Your task to perform on an android device: Clear all items from cart on bestbuy. Search for bose soundlink mini on bestbuy, select the first entry, add it to the cart, then select checkout. Image 0: 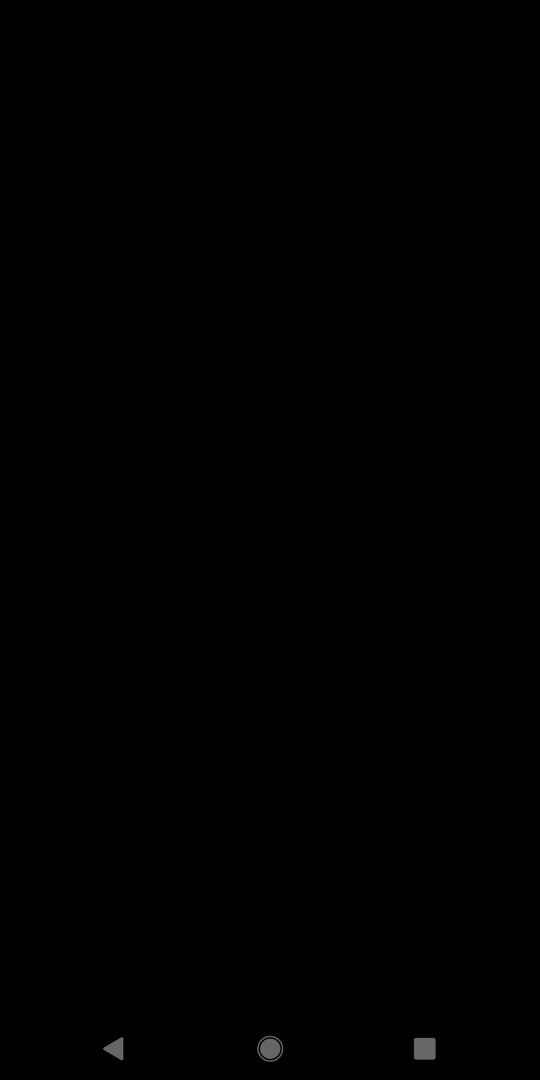
Step 0: press home button
Your task to perform on an android device: Clear all items from cart on bestbuy. Search for bose soundlink mini on bestbuy, select the first entry, add it to the cart, then select checkout. Image 1: 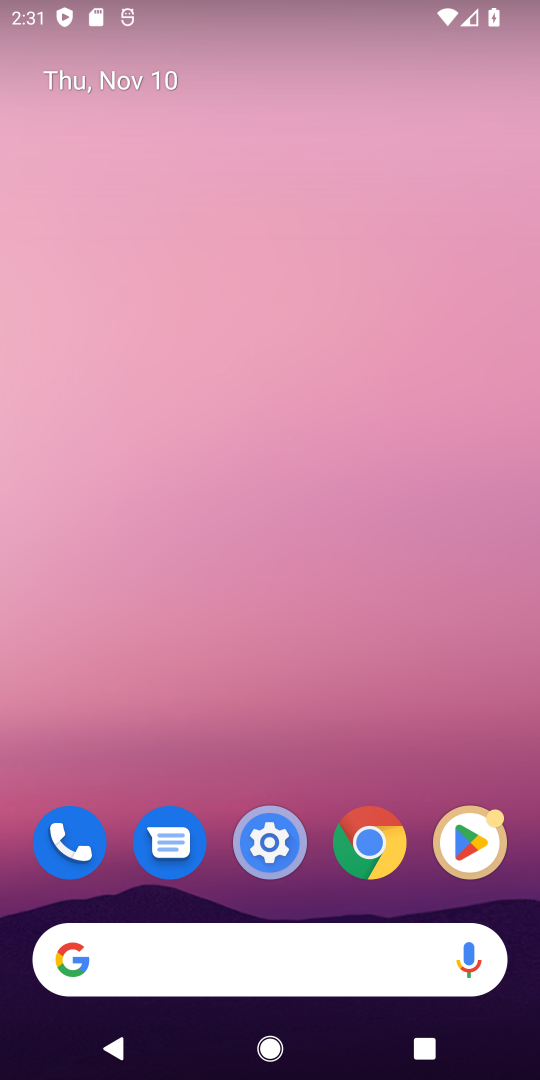
Step 1: click (105, 951)
Your task to perform on an android device: Clear all items from cart on bestbuy. Search for bose soundlink mini on bestbuy, select the first entry, add it to the cart, then select checkout. Image 2: 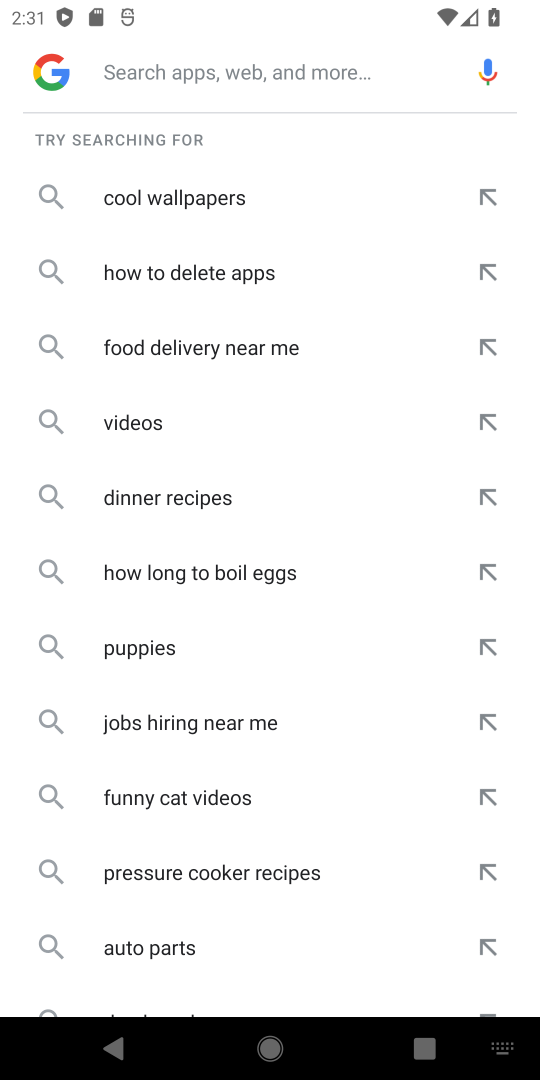
Step 2: type "bestbuy"
Your task to perform on an android device: Clear all items from cart on bestbuy. Search for bose soundlink mini on bestbuy, select the first entry, add it to the cart, then select checkout. Image 3: 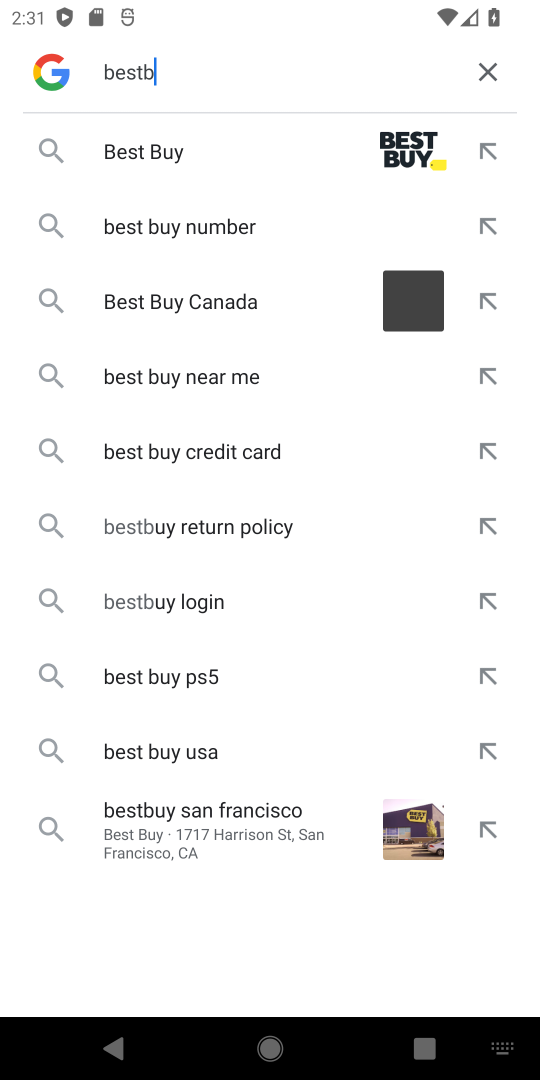
Step 3: press enter
Your task to perform on an android device: Clear all items from cart on bestbuy. Search for bose soundlink mini on bestbuy, select the first entry, add it to the cart, then select checkout. Image 4: 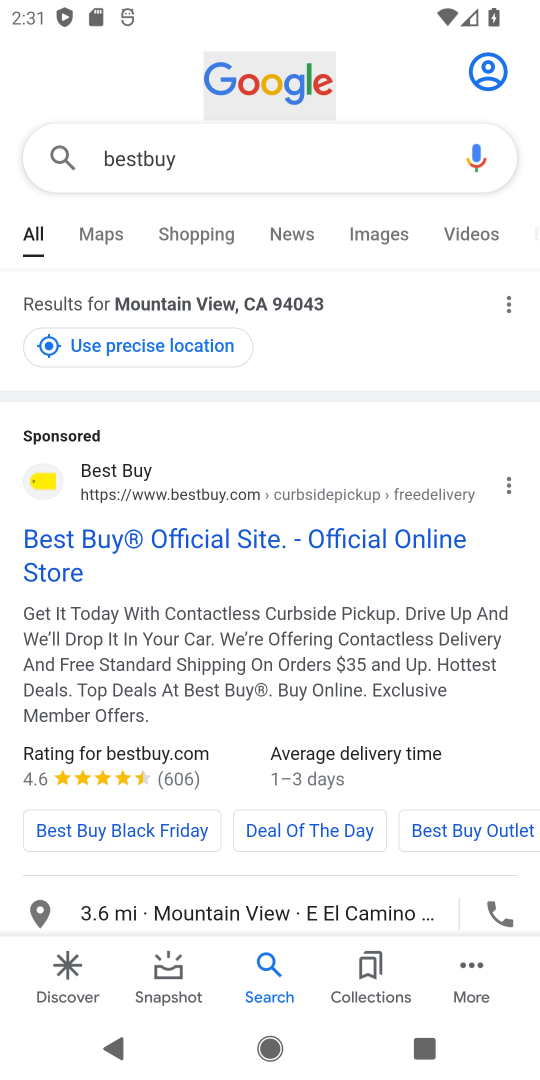
Step 4: press enter
Your task to perform on an android device: Clear all items from cart on bestbuy. Search for bose soundlink mini on bestbuy, select the first entry, add it to the cart, then select checkout. Image 5: 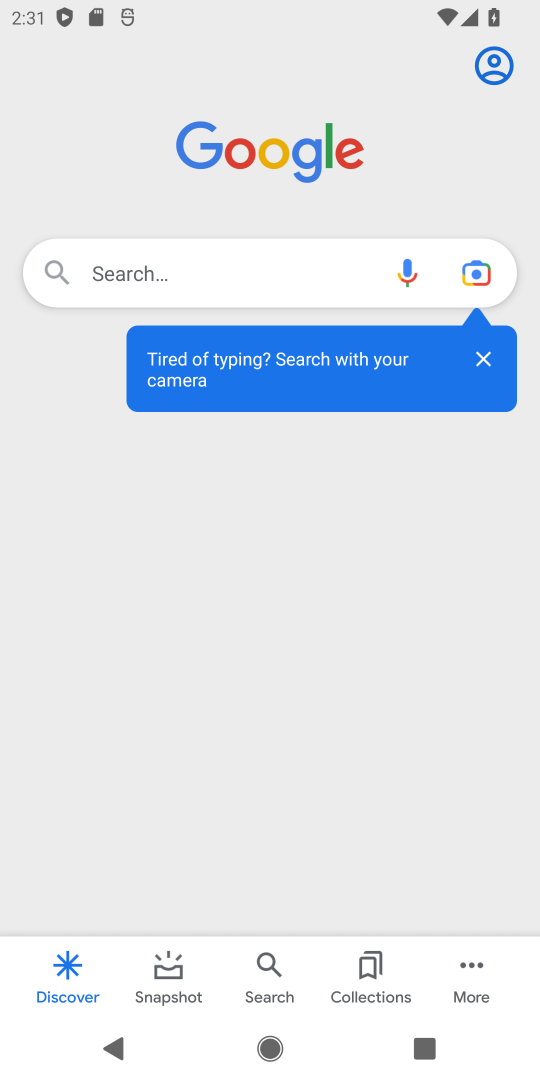
Step 5: click (153, 281)
Your task to perform on an android device: Clear all items from cart on bestbuy. Search for bose soundlink mini on bestbuy, select the first entry, add it to the cart, then select checkout. Image 6: 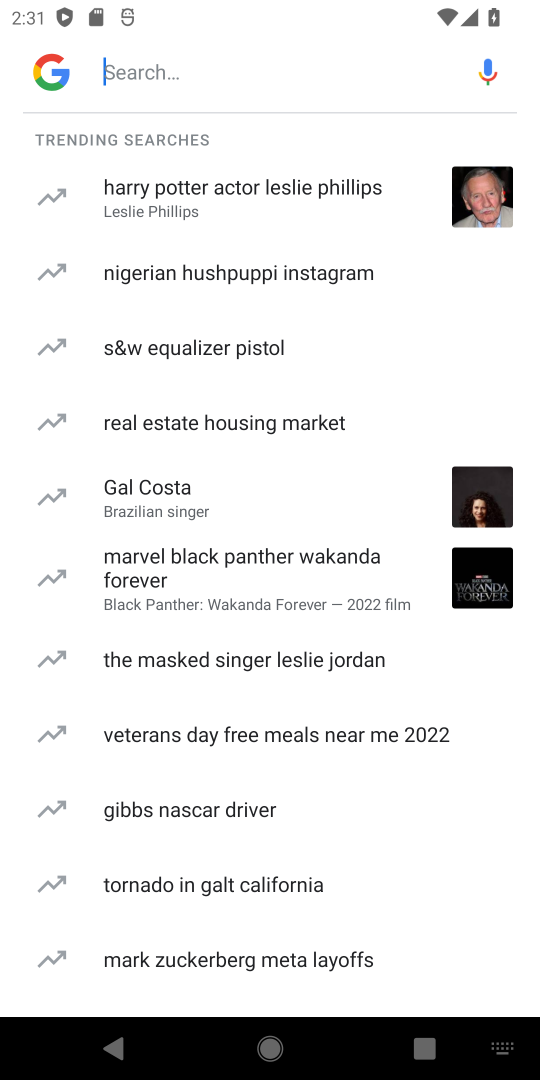
Step 6: type "bestbuy"
Your task to perform on an android device: Clear all items from cart on bestbuy. Search for bose soundlink mini on bestbuy, select the first entry, add it to the cart, then select checkout. Image 7: 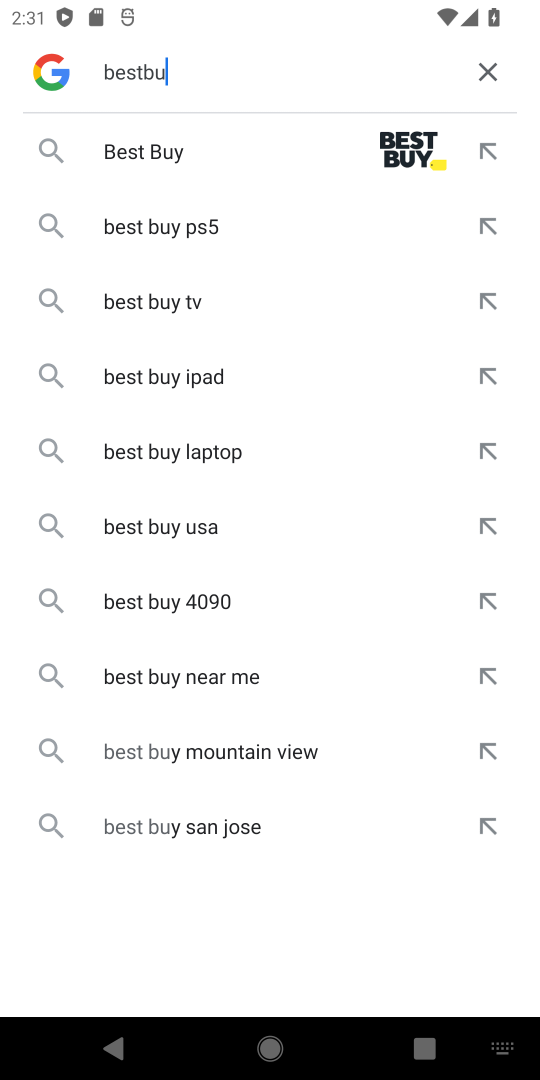
Step 7: press enter
Your task to perform on an android device: Clear all items from cart on bestbuy. Search for bose soundlink mini on bestbuy, select the first entry, add it to the cart, then select checkout. Image 8: 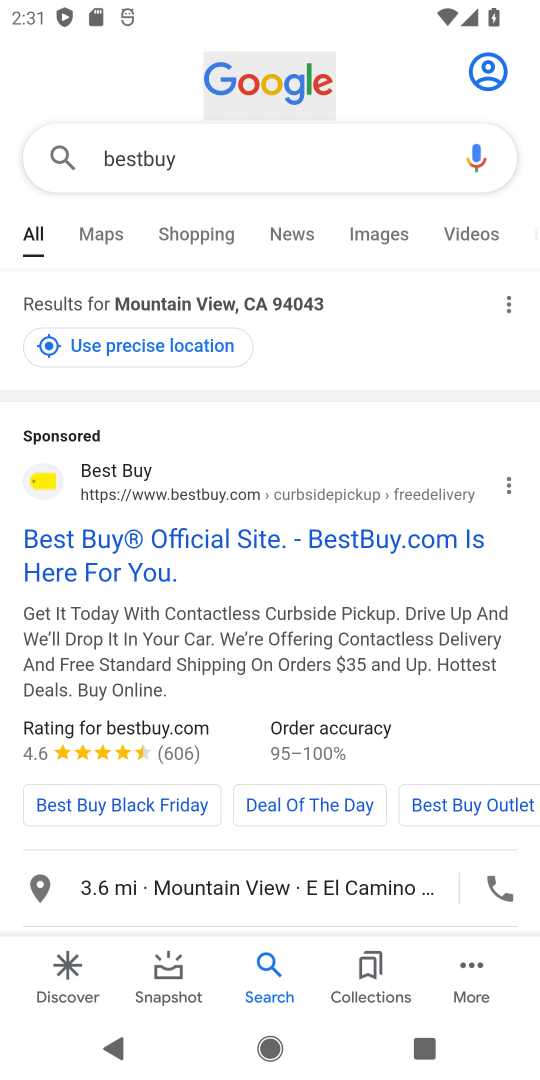
Step 8: click (101, 546)
Your task to perform on an android device: Clear all items from cart on bestbuy. Search for bose soundlink mini on bestbuy, select the first entry, add it to the cart, then select checkout. Image 9: 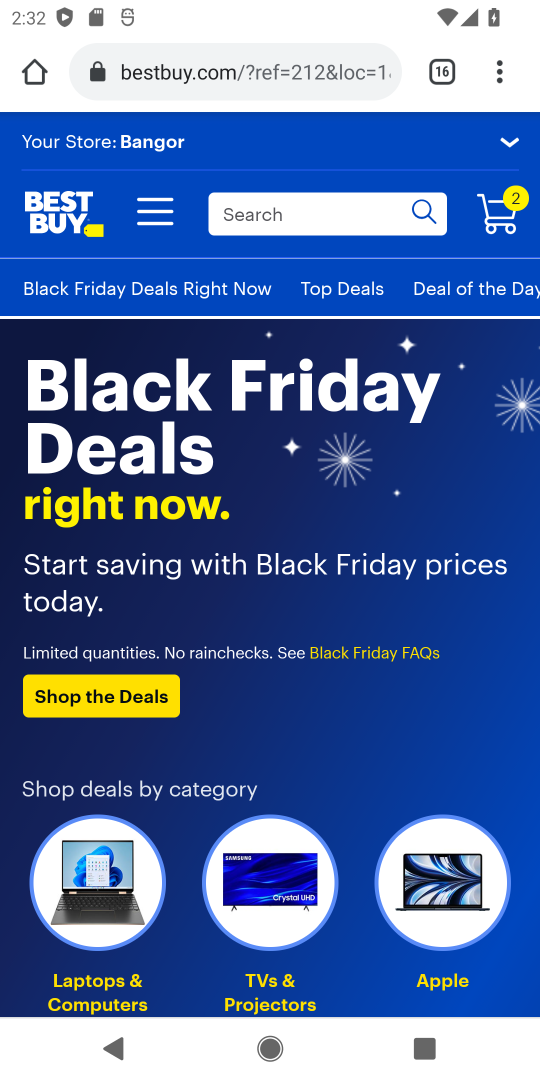
Step 9: click (504, 204)
Your task to perform on an android device: Clear all items from cart on bestbuy. Search for bose soundlink mini on bestbuy, select the first entry, add it to the cart, then select checkout. Image 10: 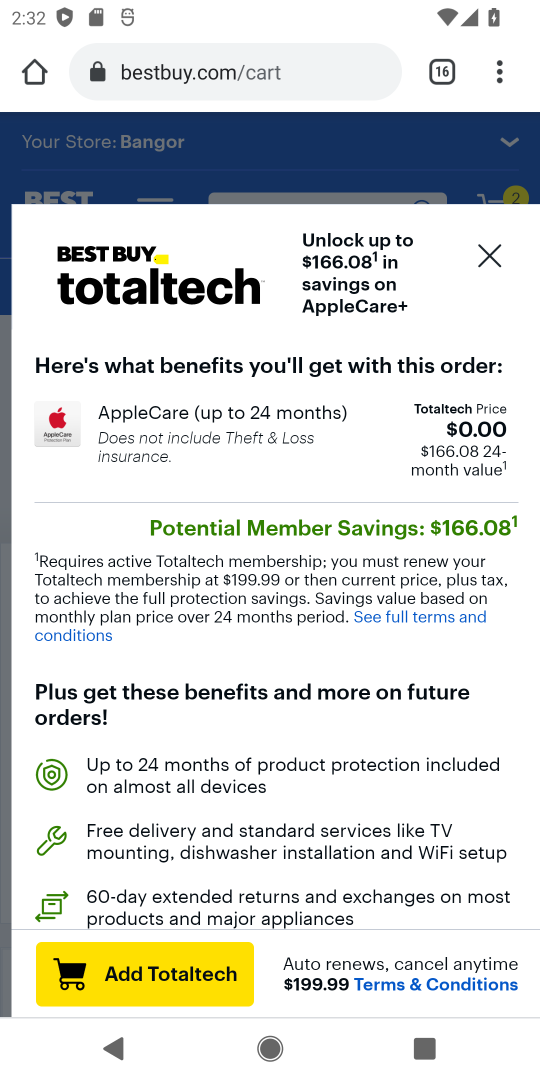
Step 10: click (495, 253)
Your task to perform on an android device: Clear all items from cart on bestbuy. Search for bose soundlink mini on bestbuy, select the first entry, add it to the cart, then select checkout. Image 11: 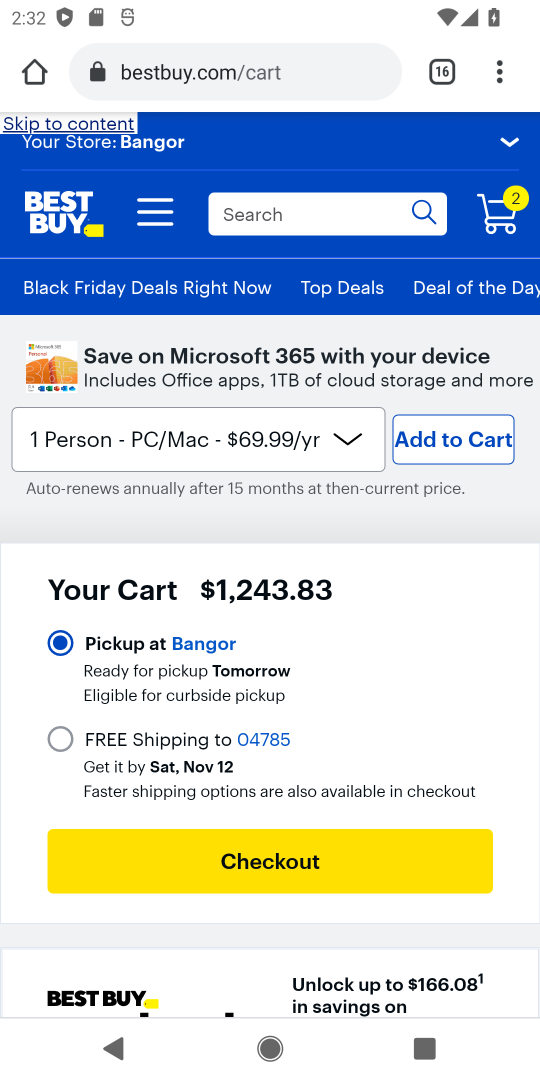
Step 11: drag from (225, 889) to (279, 428)
Your task to perform on an android device: Clear all items from cart on bestbuy. Search for bose soundlink mini on bestbuy, select the first entry, add it to the cart, then select checkout. Image 12: 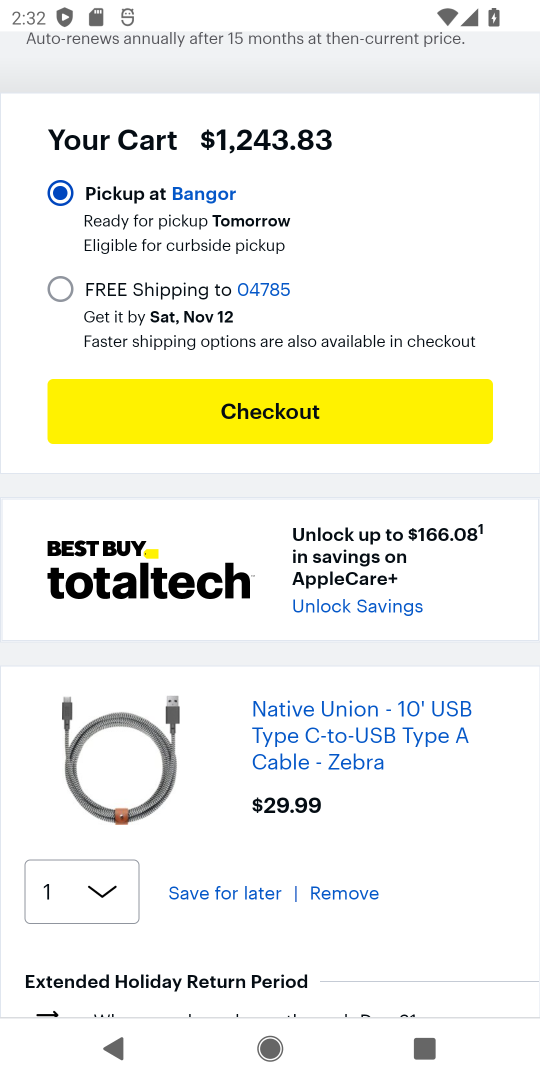
Step 12: drag from (282, 911) to (304, 346)
Your task to perform on an android device: Clear all items from cart on bestbuy. Search for bose soundlink mini on bestbuy, select the first entry, add it to the cart, then select checkout. Image 13: 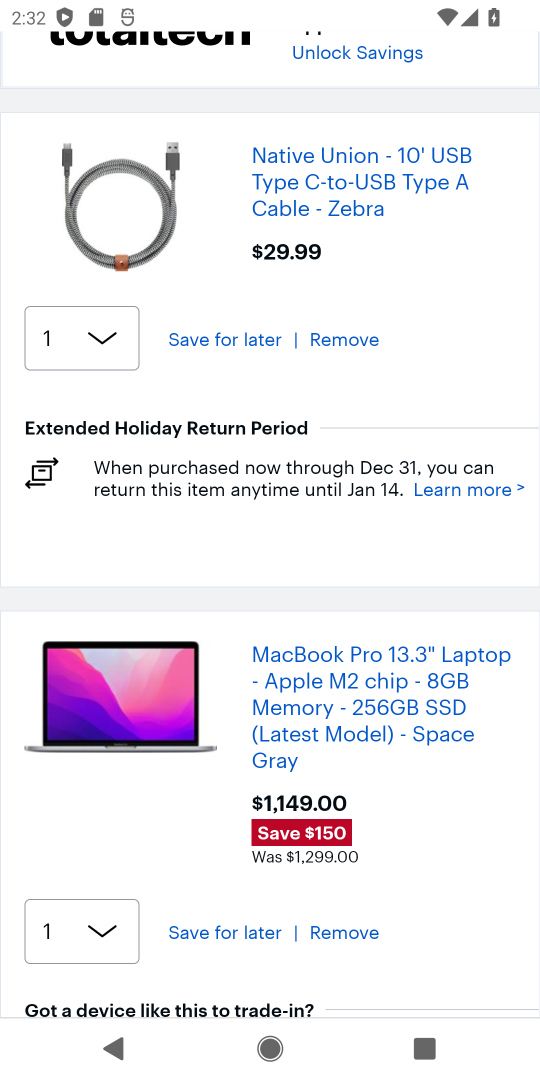
Step 13: click (338, 347)
Your task to perform on an android device: Clear all items from cart on bestbuy. Search for bose soundlink mini on bestbuy, select the first entry, add it to the cart, then select checkout. Image 14: 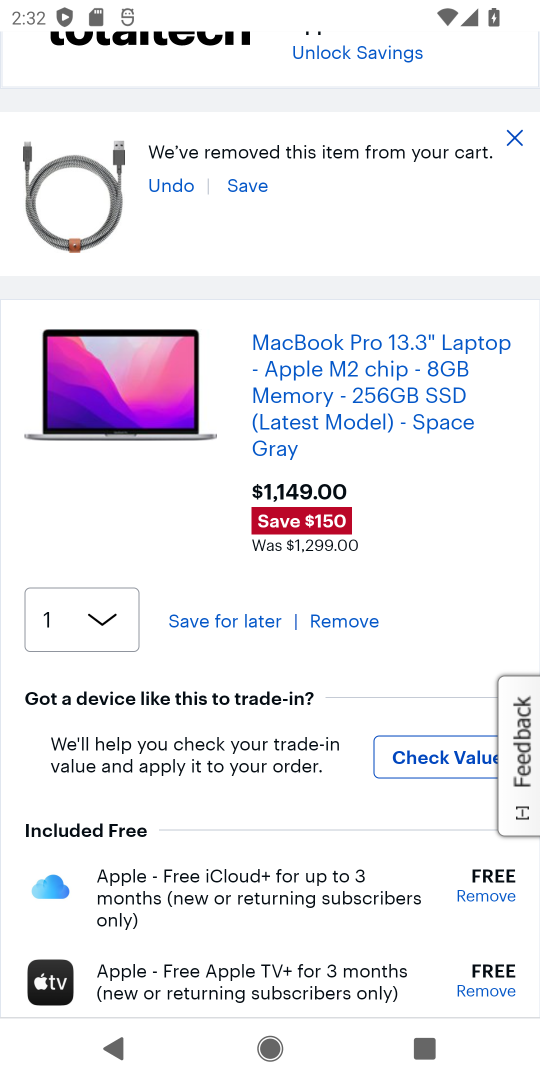
Step 14: click (362, 624)
Your task to perform on an android device: Clear all items from cart on bestbuy. Search for bose soundlink mini on bestbuy, select the first entry, add it to the cart, then select checkout. Image 15: 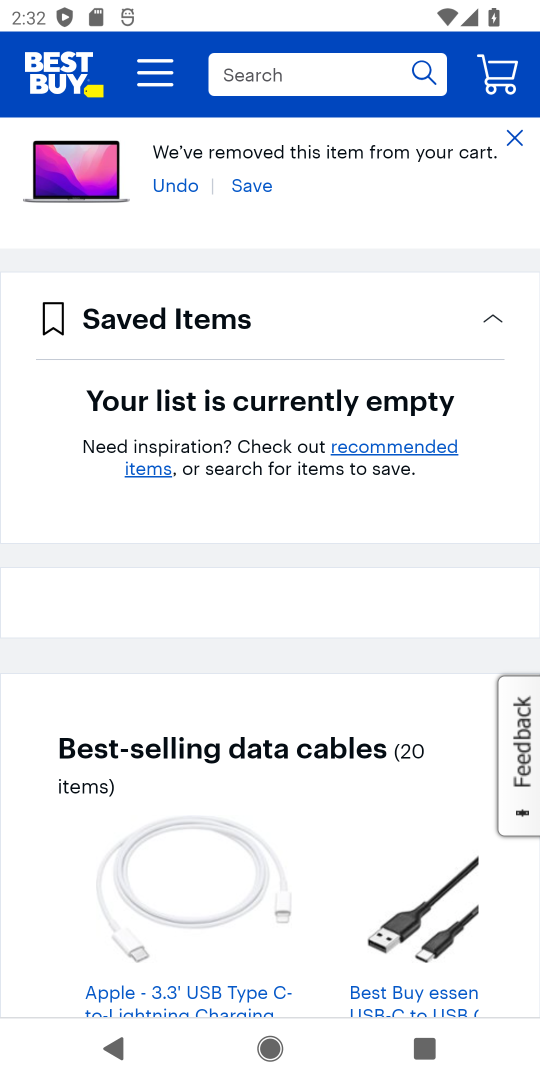
Step 15: click (256, 70)
Your task to perform on an android device: Clear all items from cart on bestbuy. Search for bose soundlink mini on bestbuy, select the first entry, add it to the cart, then select checkout. Image 16: 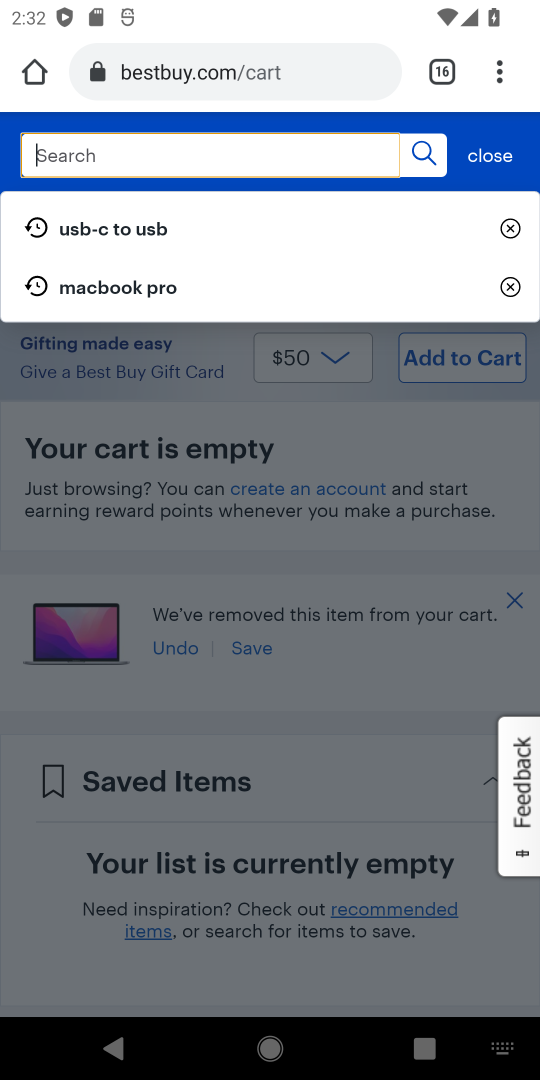
Step 16: type "bose soundlink mini"
Your task to perform on an android device: Clear all items from cart on bestbuy. Search for bose soundlink mini on bestbuy, select the first entry, add it to the cart, then select checkout. Image 17: 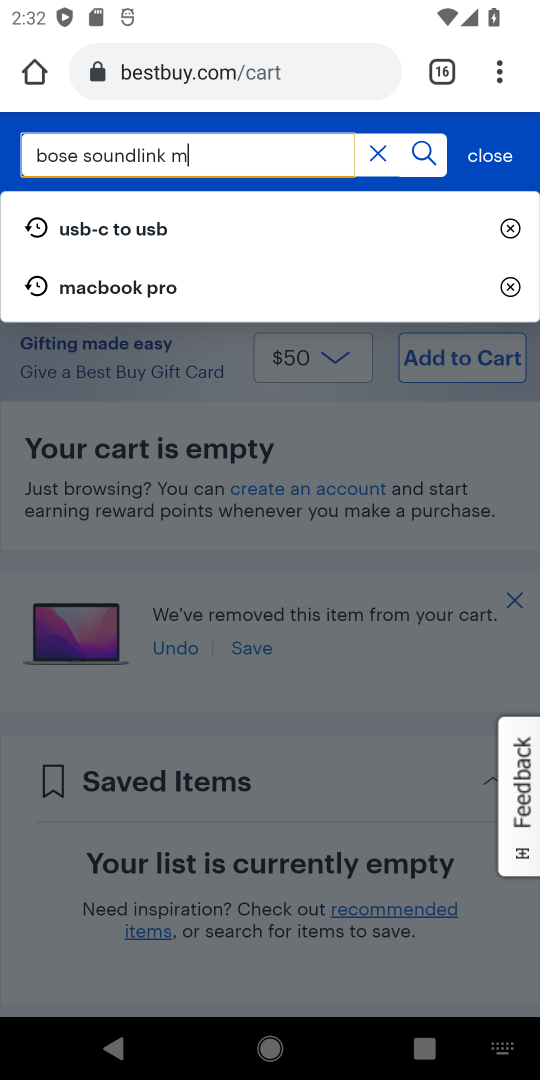
Step 17: press enter
Your task to perform on an android device: Clear all items from cart on bestbuy. Search for bose soundlink mini on bestbuy, select the first entry, add it to the cart, then select checkout. Image 18: 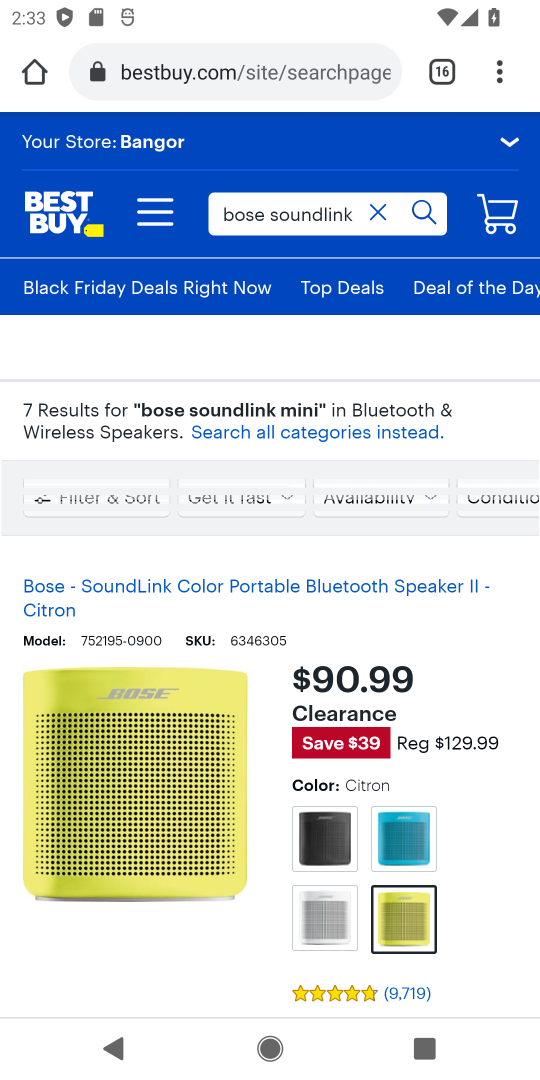
Step 18: drag from (461, 859) to (443, 542)
Your task to perform on an android device: Clear all items from cart on bestbuy. Search for bose soundlink mini on bestbuy, select the first entry, add it to the cart, then select checkout. Image 19: 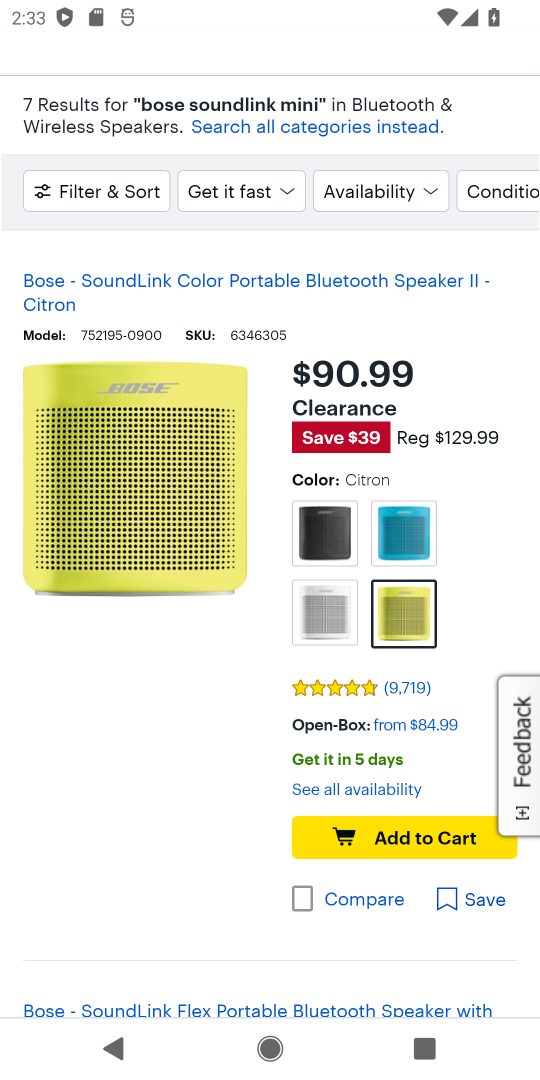
Step 19: click (413, 834)
Your task to perform on an android device: Clear all items from cart on bestbuy. Search for bose soundlink mini on bestbuy, select the first entry, add it to the cart, then select checkout. Image 20: 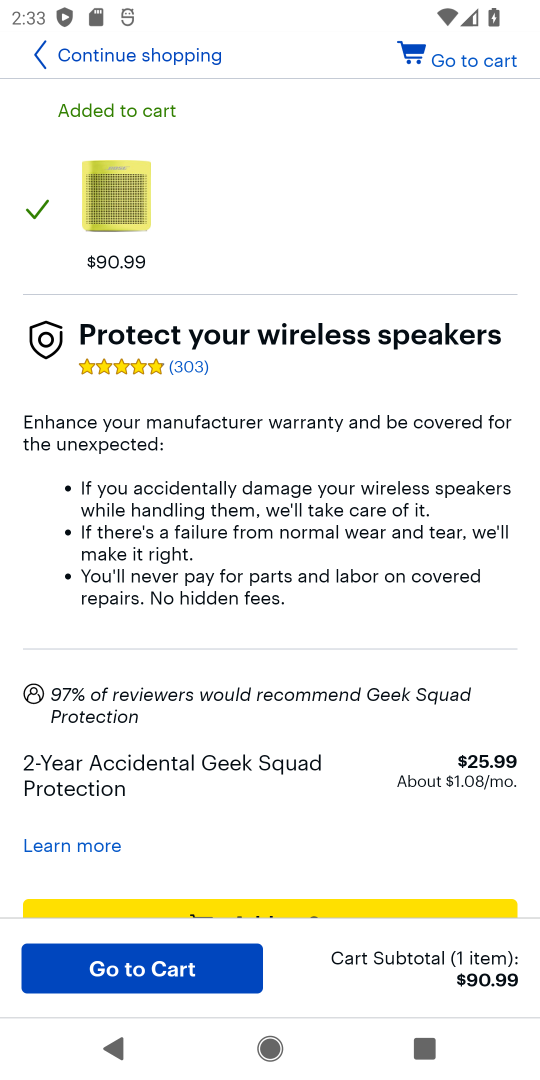
Step 20: task complete